Your task to perform on an android device: toggle pop-ups in chrome Image 0: 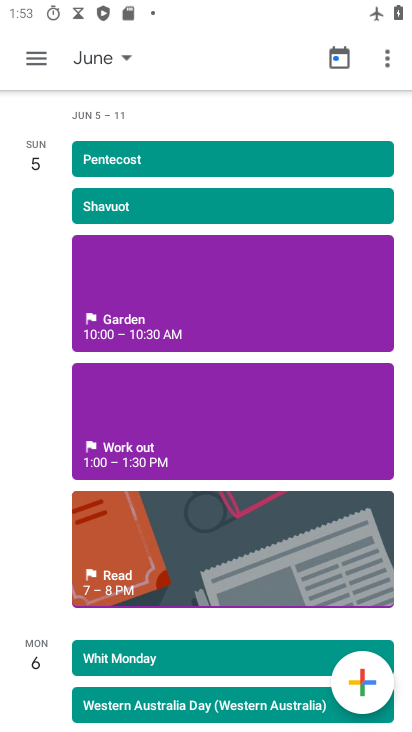
Step 0: press home button
Your task to perform on an android device: toggle pop-ups in chrome Image 1: 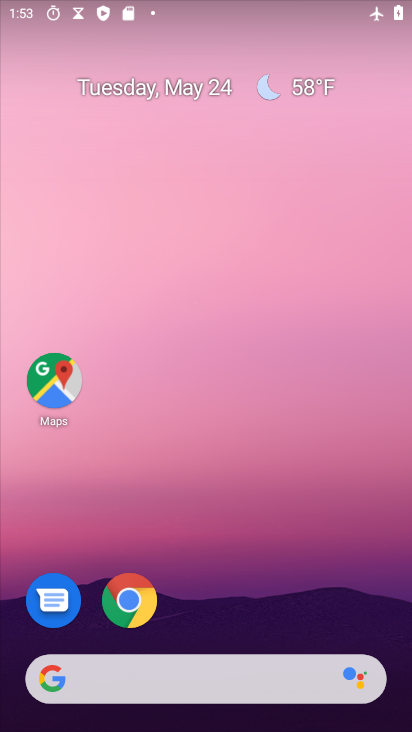
Step 1: click (132, 602)
Your task to perform on an android device: toggle pop-ups in chrome Image 2: 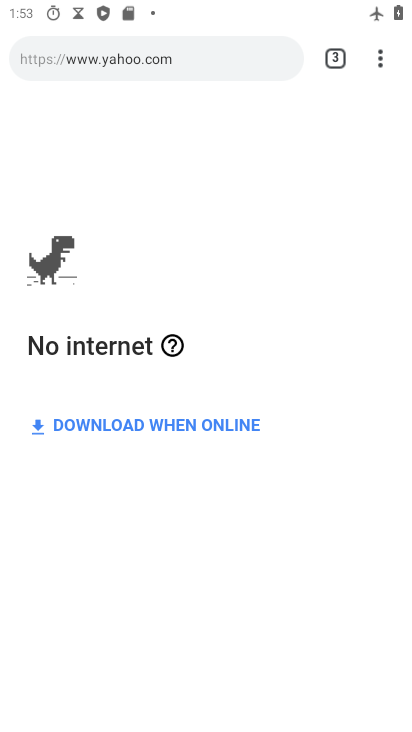
Step 2: click (384, 58)
Your task to perform on an android device: toggle pop-ups in chrome Image 3: 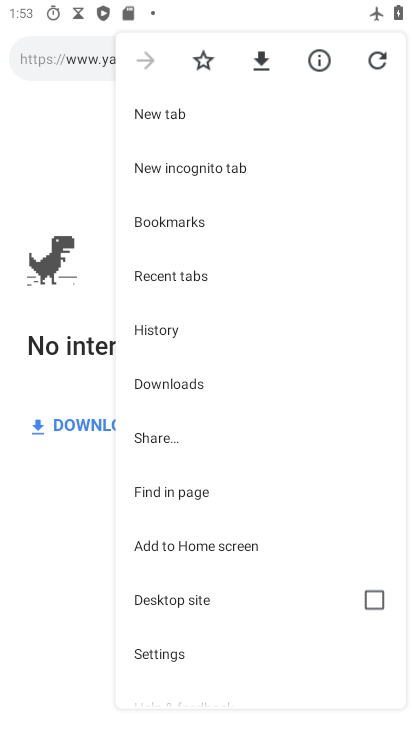
Step 3: click (222, 659)
Your task to perform on an android device: toggle pop-ups in chrome Image 4: 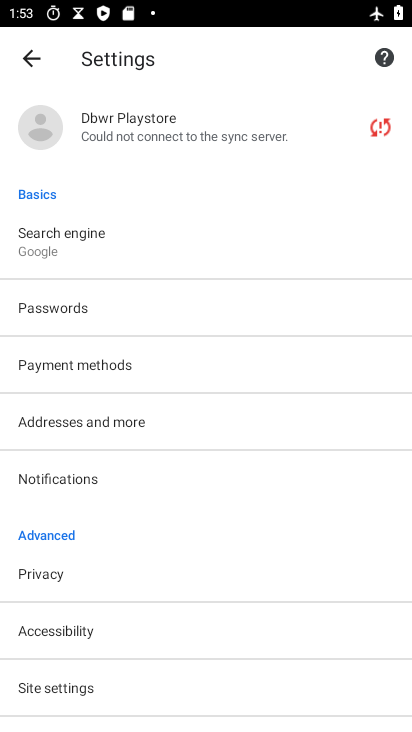
Step 4: drag from (236, 671) to (233, 275)
Your task to perform on an android device: toggle pop-ups in chrome Image 5: 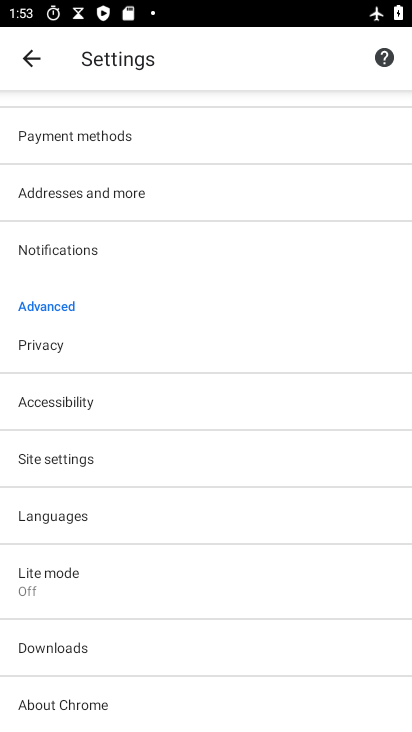
Step 5: drag from (205, 641) to (197, 299)
Your task to perform on an android device: toggle pop-ups in chrome Image 6: 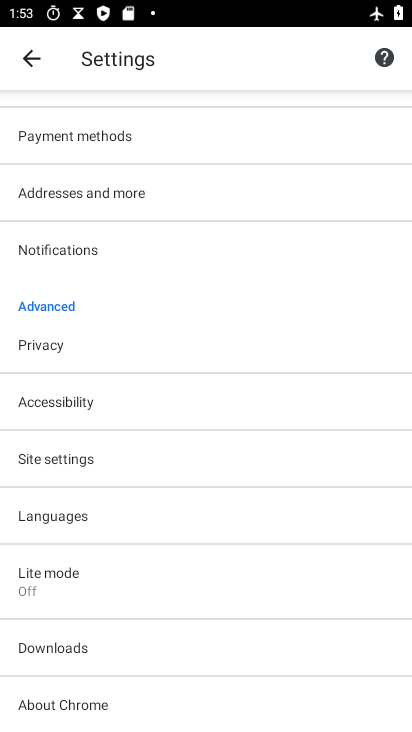
Step 6: click (134, 465)
Your task to perform on an android device: toggle pop-ups in chrome Image 7: 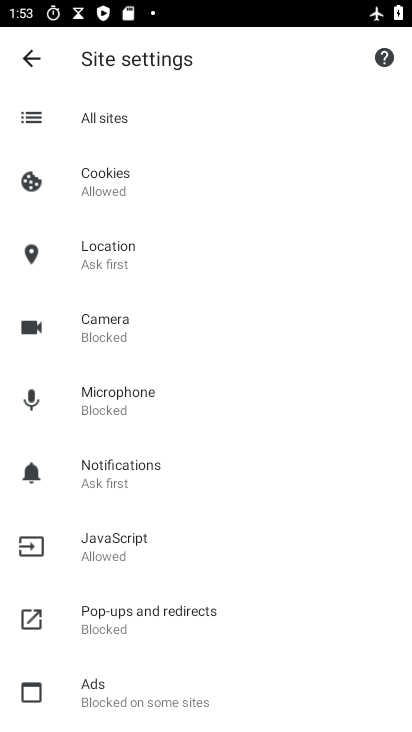
Step 7: click (222, 618)
Your task to perform on an android device: toggle pop-ups in chrome Image 8: 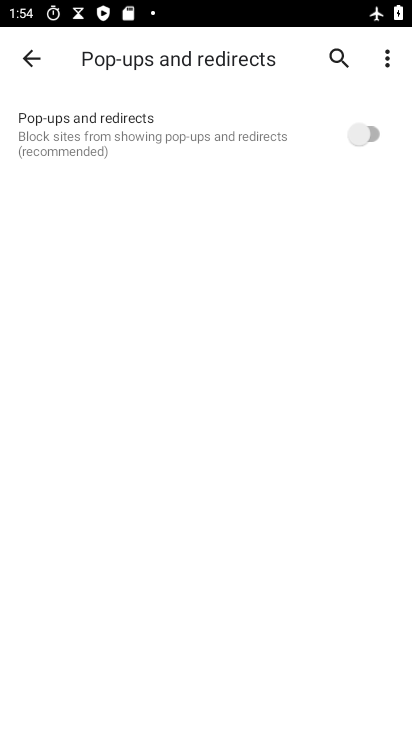
Step 8: click (366, 133)
Your task to perform on an android device: toggle pop-ups in chrome Image 9: 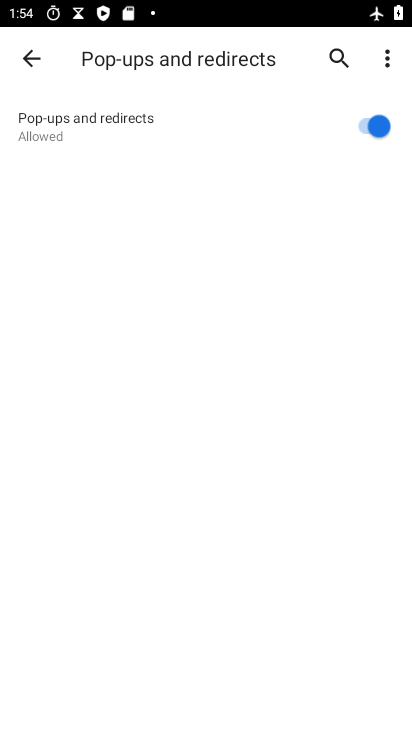
Step 9: task complete